Your task to perform on an android device: toggle notification dots Image 0: 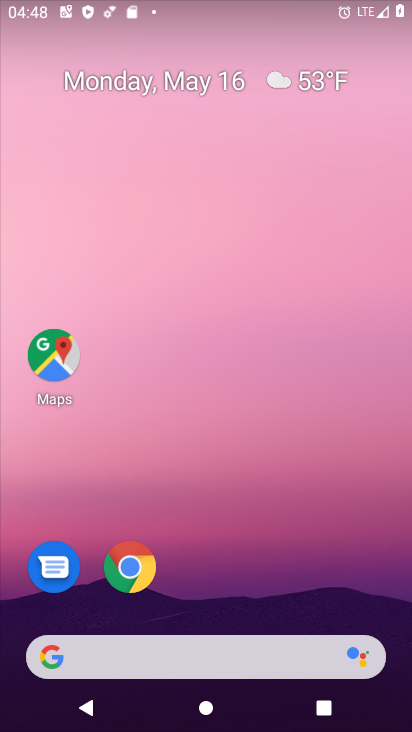
Step 0: drag from (212, 670) to (297, 134)
Your task to perform on an android device: toggle notification dots Image 1: 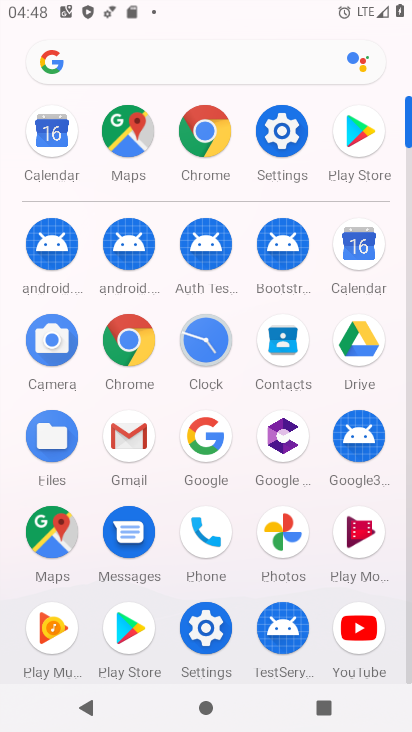
Step 1: click (274, 135)
Your task to perform on an android device: toggle notification dots Image 2: 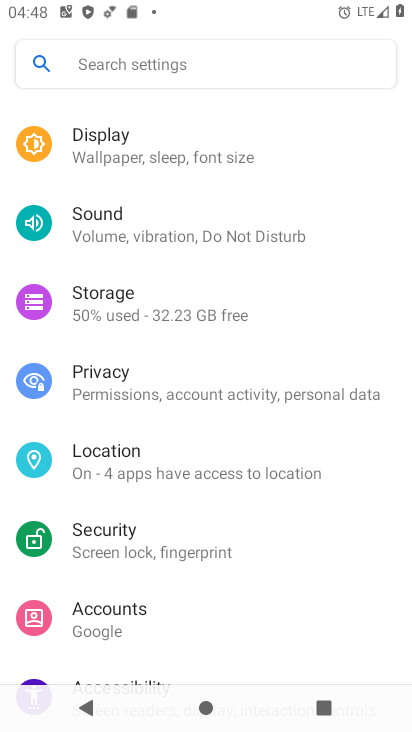
Step 2: drag from (209, 265) to (219, 628)
Your task to perform on an android device: toggle notification dots Image 3: 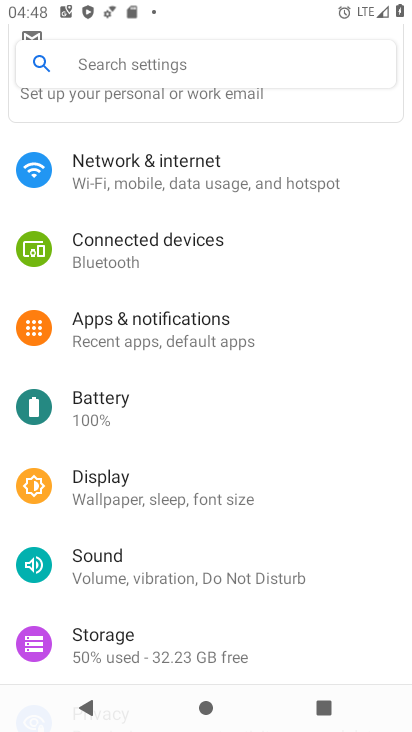
Step 3: click (217, 336)
Your task to perform on an android device: toggle notification dots Image 4: 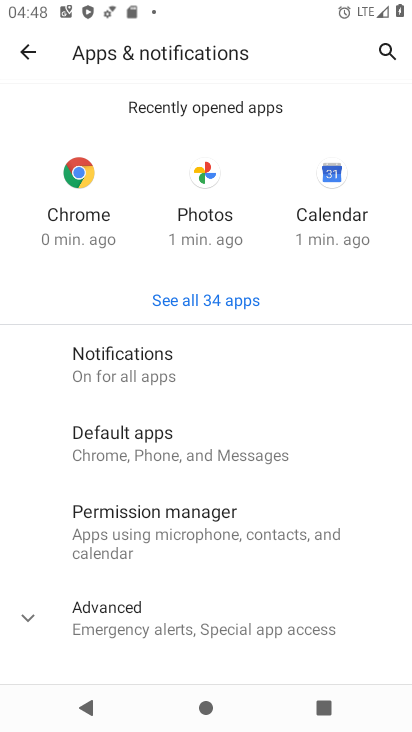
Step 4: drag from (250, 614) to (253, 251)
Your task to perform on an android device: toggle notification dots Image 5: 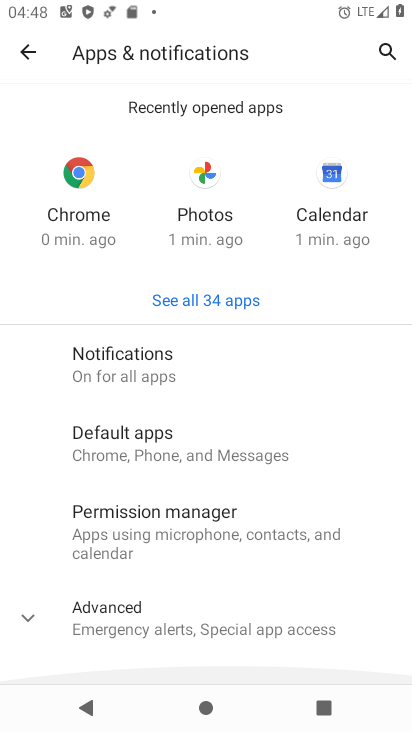
Step 5: click (192, 350)
Your task to perform on an android device: toggle notification dots Image 6: 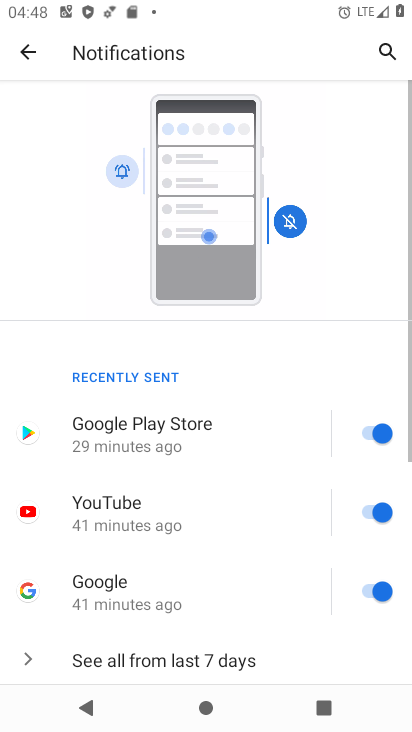
Step 6: drag from (260, 654) to (291, 271)
Your task to perform on an android device: toggle notification dots Image 7: 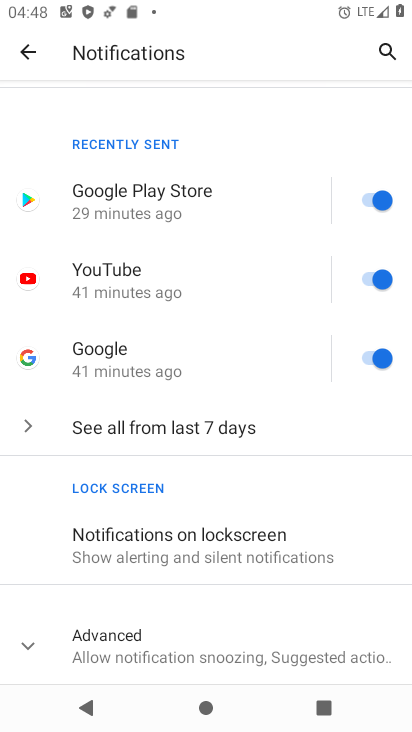
Step 7: click (228, 642)
Your task to perform on an android device: toggle notification dots Image 8: 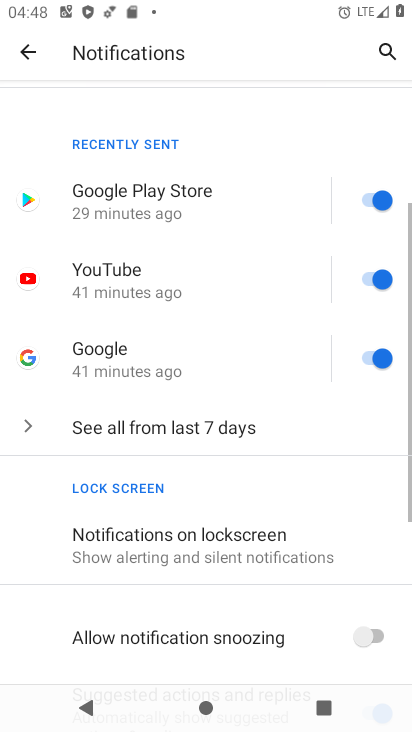
Step 8: drag from (228, 642) to (240, 190)
Your task to perform on an android device: toggle notification dots Image 9: 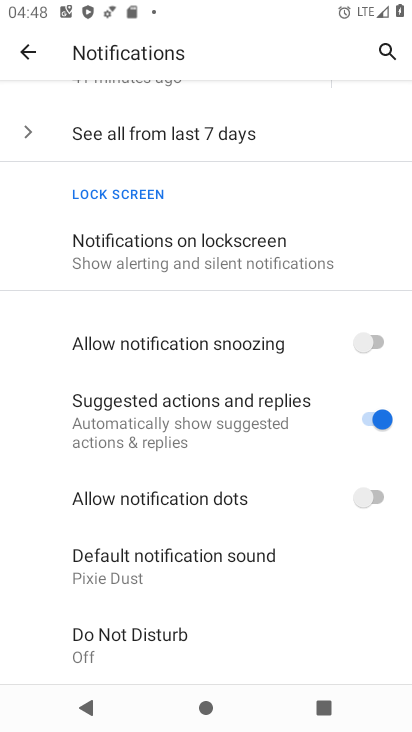
Step 9: click (379, 496)
Your task to perform on an android device: toggle notification dots Image 10: 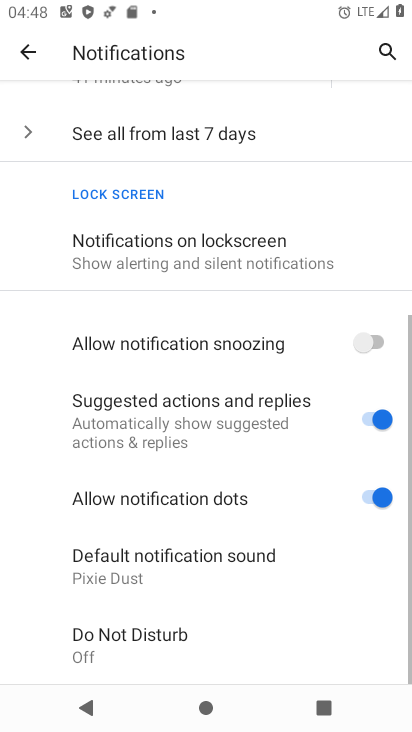
Step 10: task complete